Your task to perform on an android device: toggle translation in the chrome app Image 0: 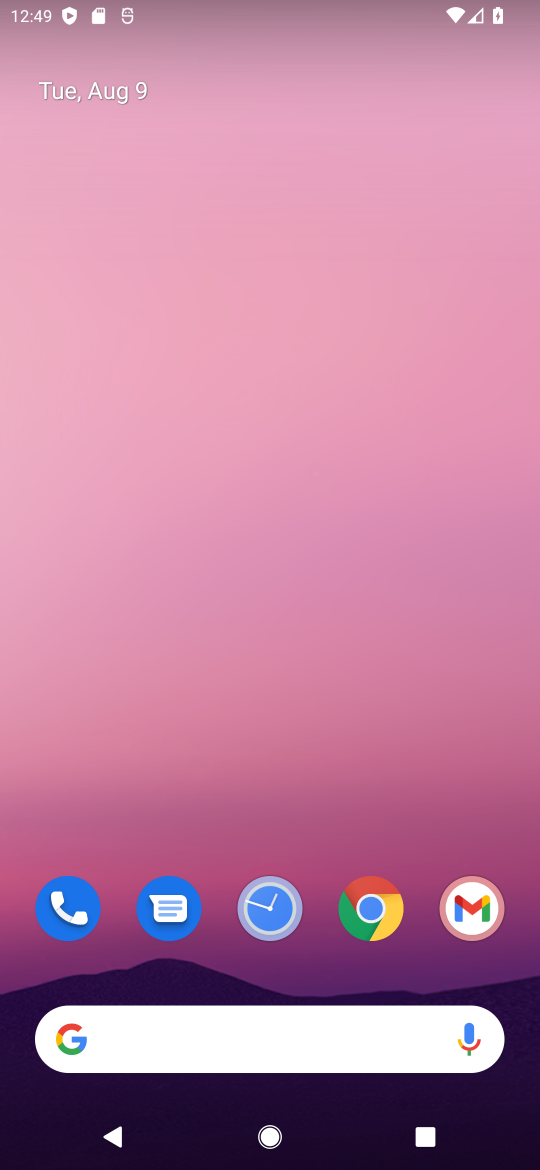
Step 0: click (360, 906)
Your task to perform on an android device: toggle translation in the chrome app Image 1: 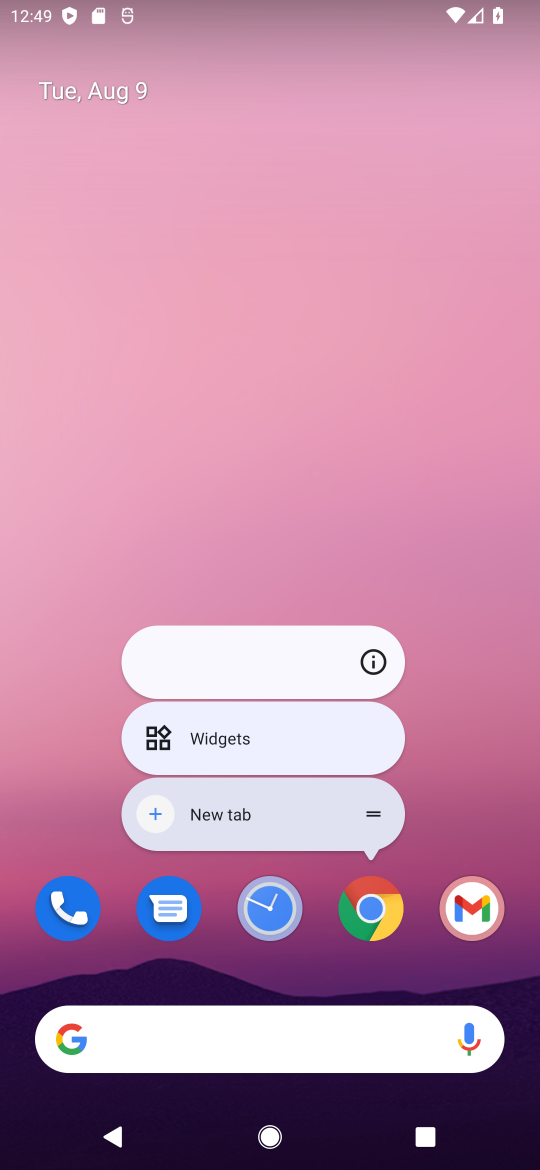
Step 1: click (379, 922)
Your task to perform on an android device: toggle translation in the chrome app Image 2: 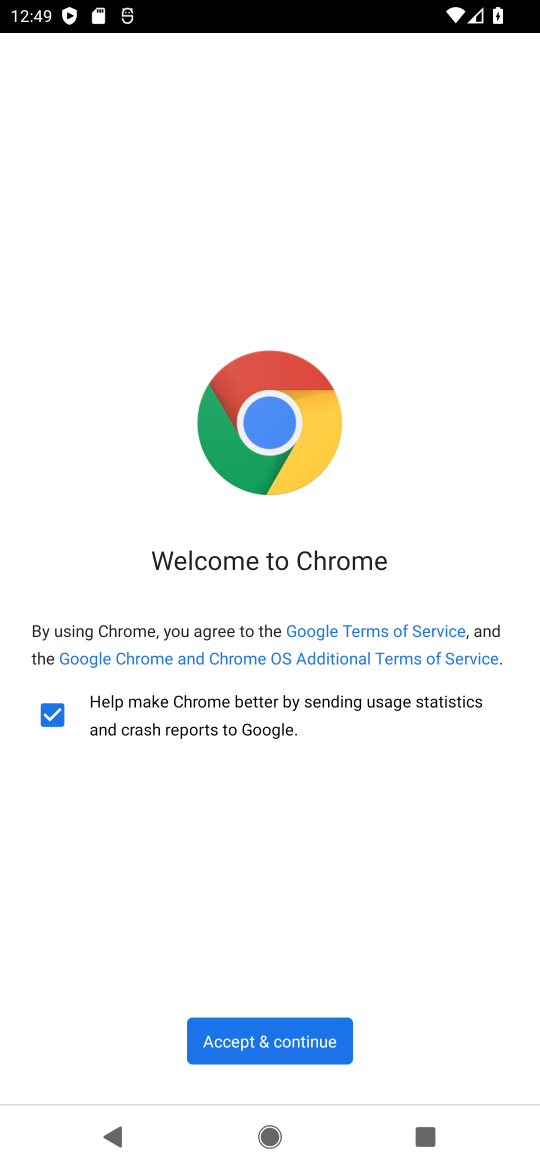
Step 2: click (255, 1019)
Your task to perform on an android device: toggle translation in the chrome app Image 3: 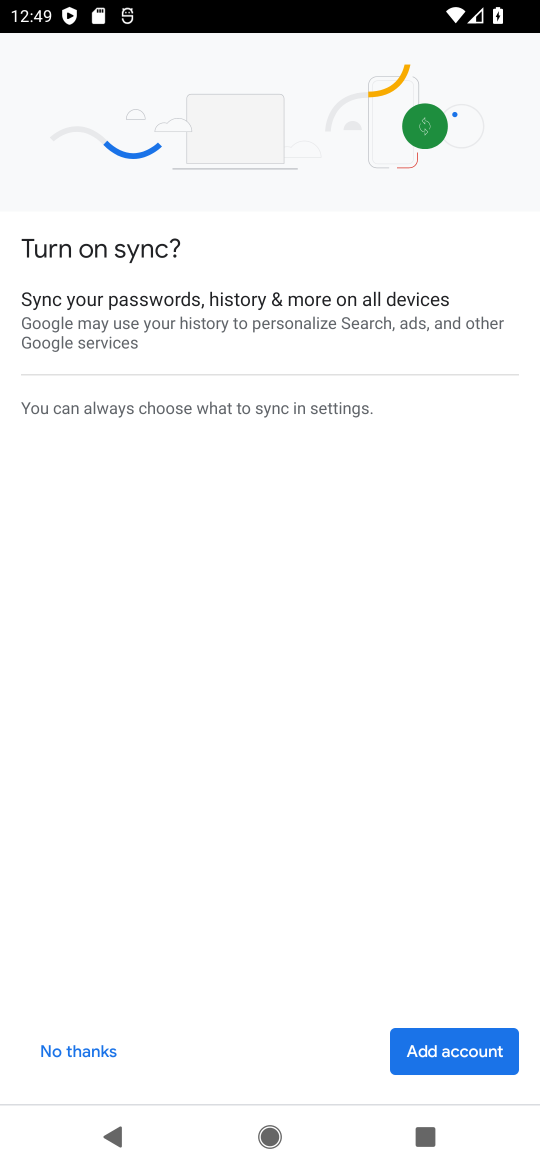
Step 3: click (418, 1041)
Your task to perform on an android device: toggle translation in the chrome app Image 4: 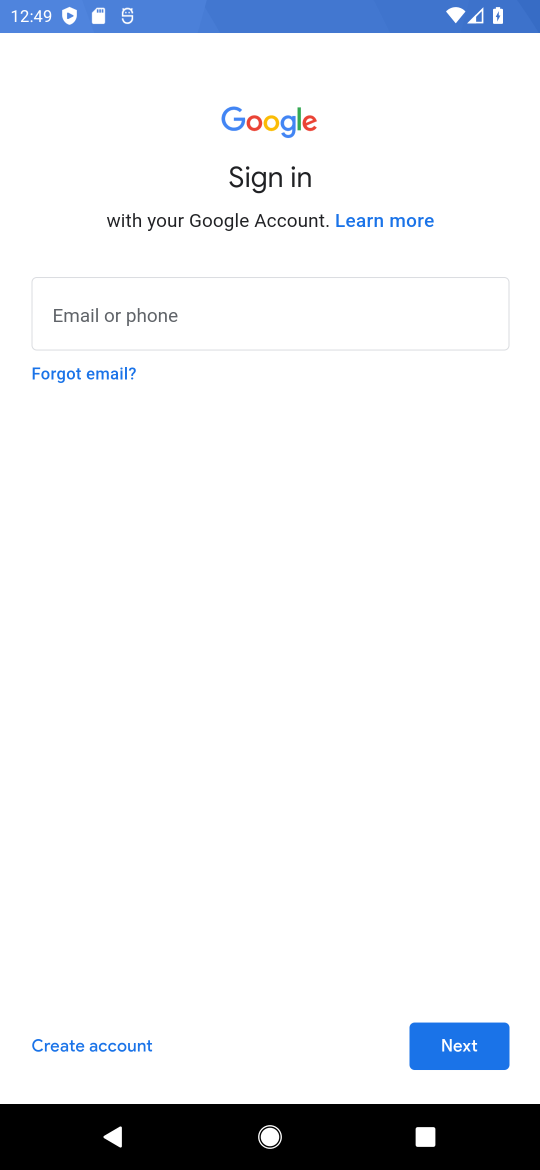
Step 4: click (444, 1045)
Your task to perform on an android device: toggle translation in the chrome app Image 5: 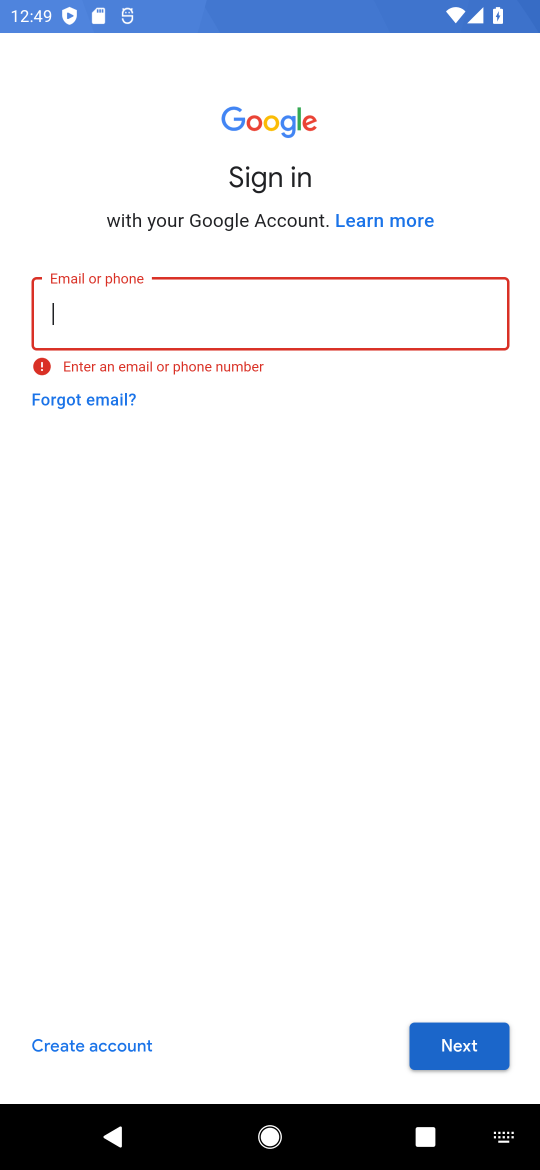
Step 5: task complete